Your task to perform on an android device: Open notification settings Image 0: 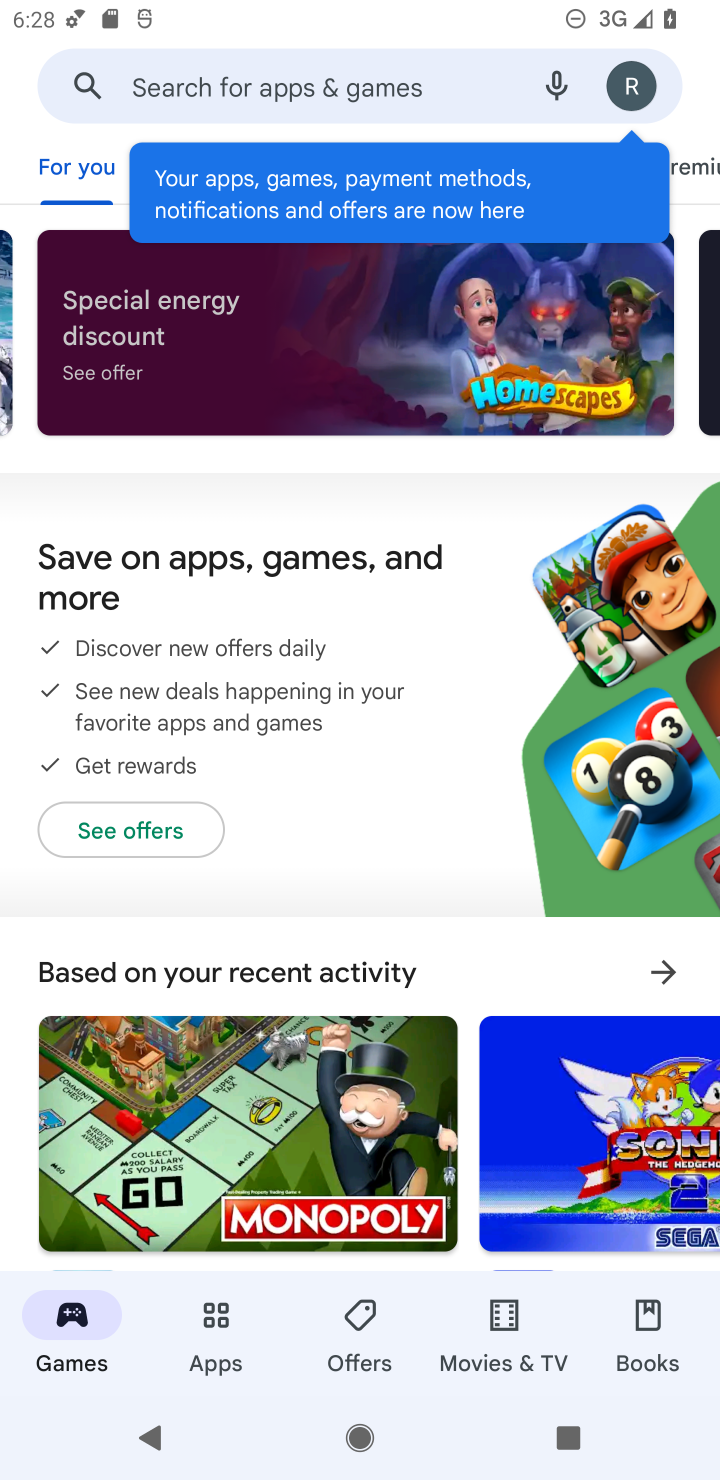
Step 0: press home button
Your task to perform on an android device: Open notification settings Image 1: 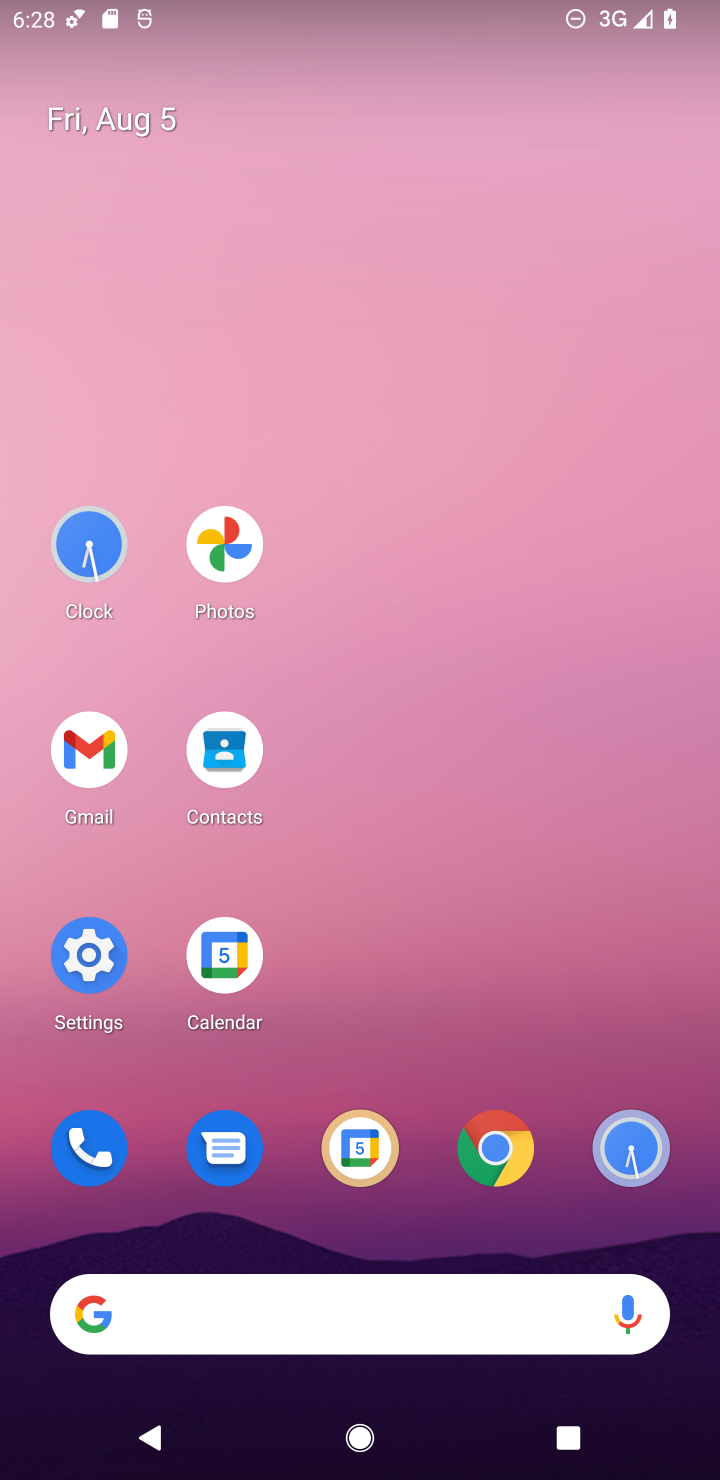
Step 1: click (87, 955)
Your task to perform on an android device: Open notification settings Image 2: 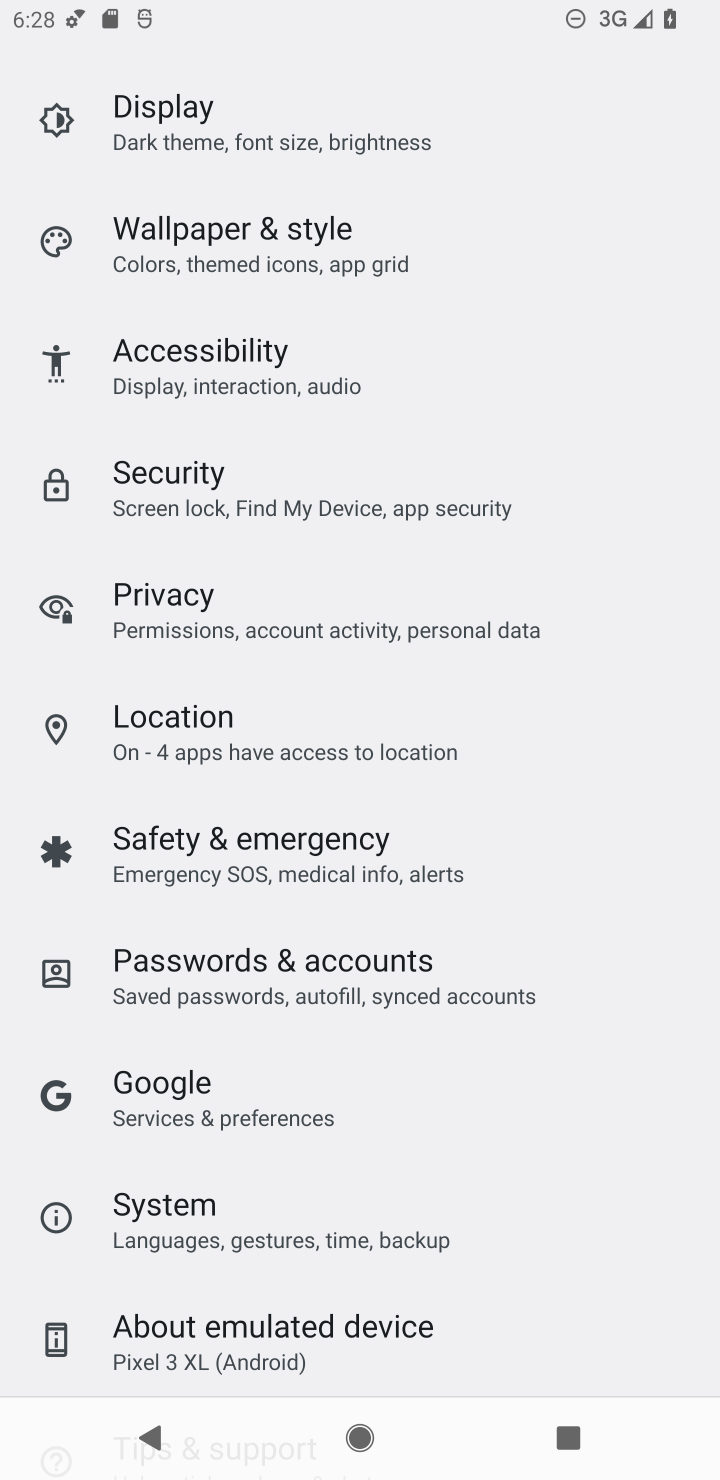
Step 2: drag from (517, 307) to (506, 1051)
Your task to perform on an android device: Open notification settings Image 3: 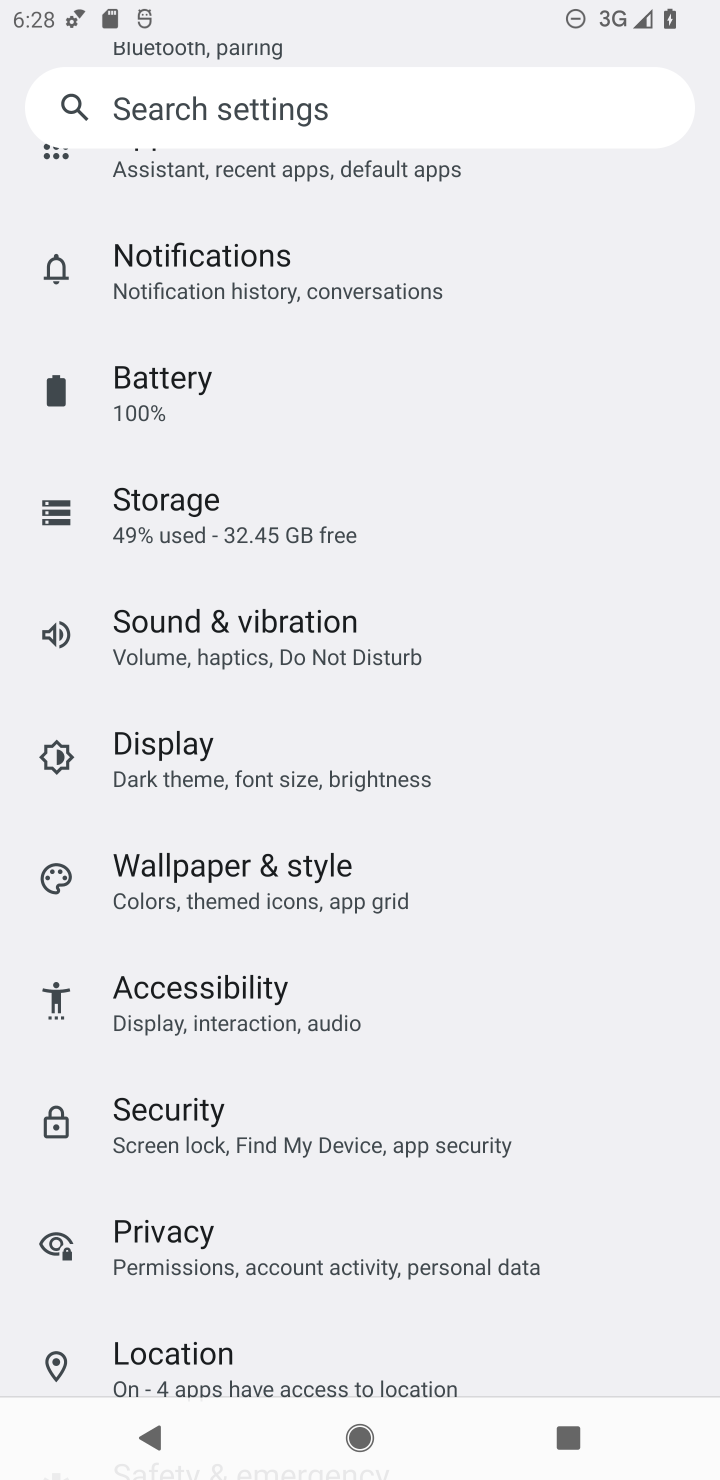
Step 3: click (223, 251)
Your task to perform on an android device: Open notification settings Image 4: 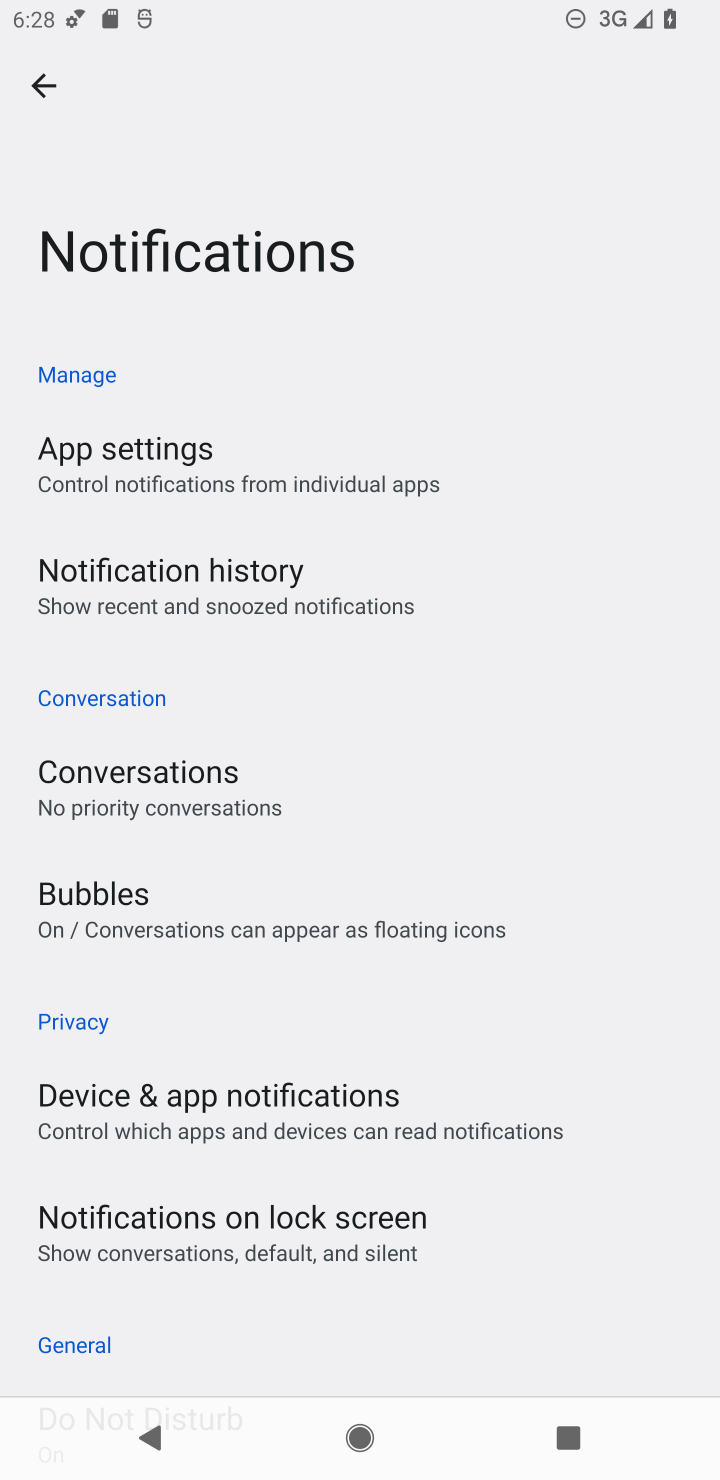
Step 4: task complete